Your task to perform on an android device: turn off notifications settings in the gmail app Image 0: 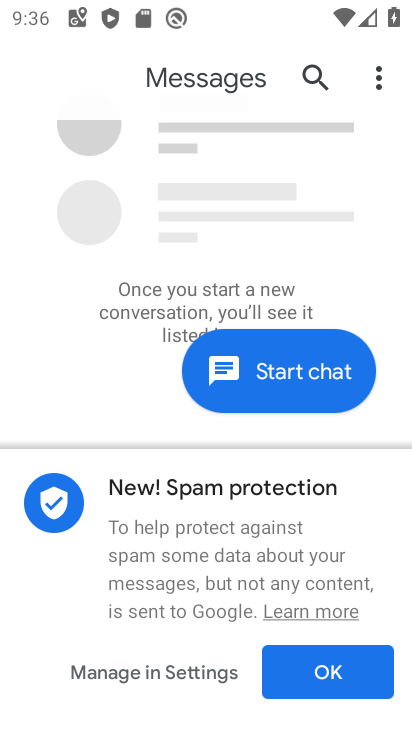
Step 0: press home button
Your task to perform on an android device: turn off notifications settings in the gmail app Image 1: 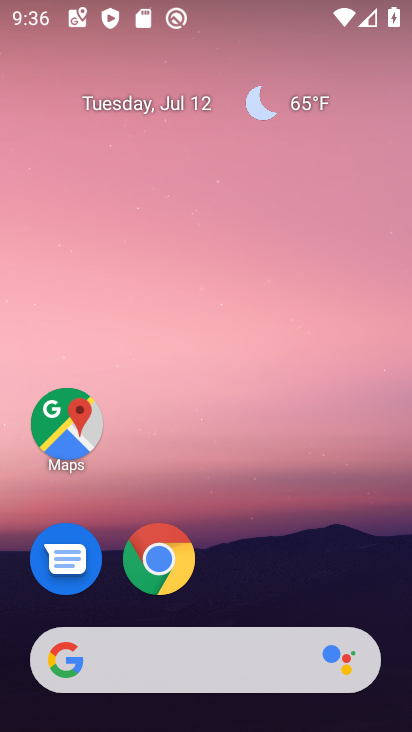
Step 1: drag from (351, 581) to (354, 68)
Your task to perform on an android device: turn off notifications settings in the gmail app Image 2: 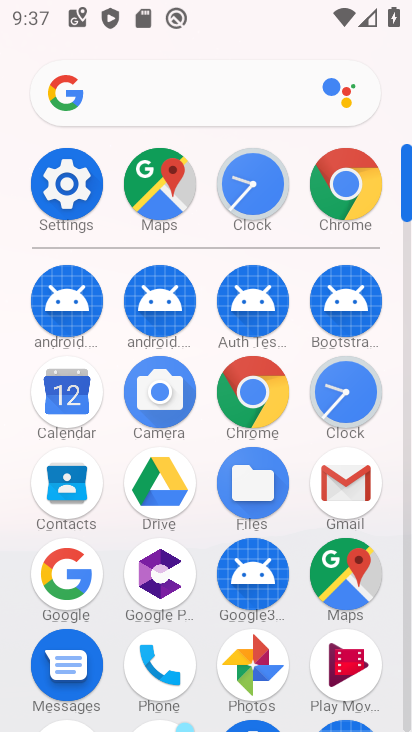
Step 2: click (353, 482)
Your task to perform on an android device: turn off notifications settings in the gmail app Image 3: 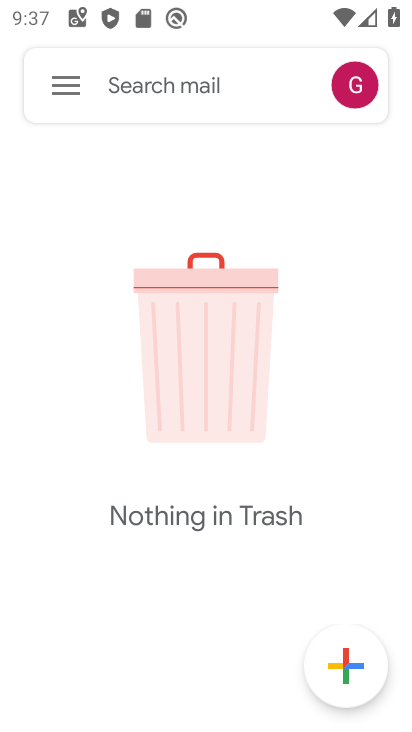
Step 3: click (64, 88)
Your task to perform on an android device: turn off notifications settings in the gmail app Image 4: 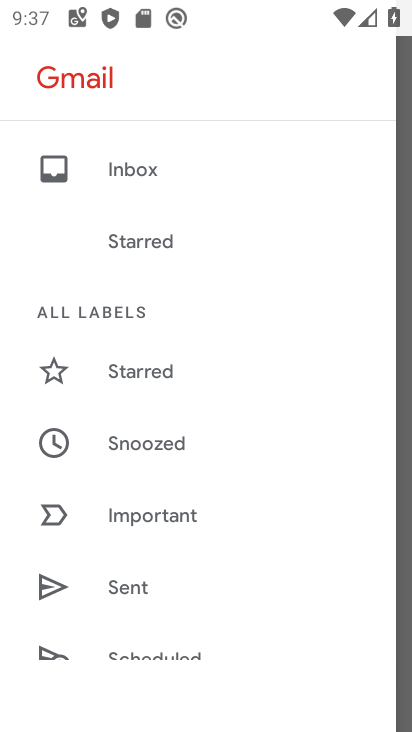
Step 4: drag from (292, 499) to (298, 270)
Your task to perform on an android device: turn off notifications settings in the gmail app Image 5: 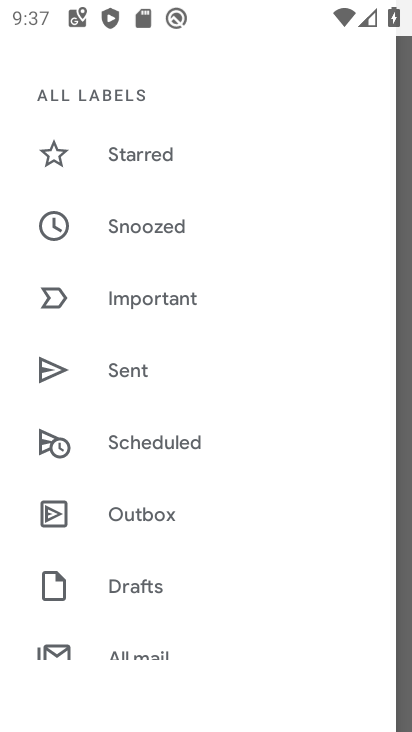
Step 5: drag from (325, 196) to (305, 374)
Your task to perform on an android device: turn off notifications settings in the gmail app Image 6: 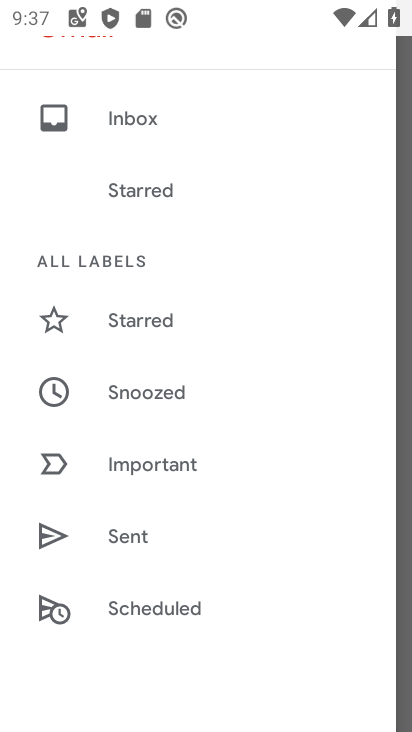
Step 6: drag from (291, 132) to (280, 318)
Your task to perform on an android device: turn off notifications settings in the gmail app Image 7: 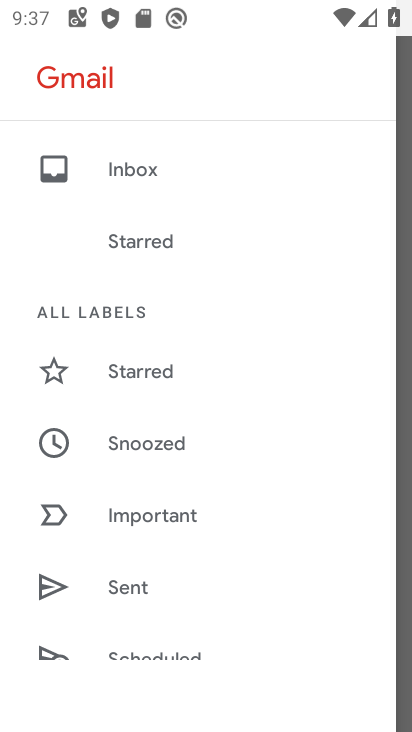
Step 7: drag from (303, 439) to (300, 230)
Your task to perform on an android device: turn off notifications settings in the gmail app Image 8: 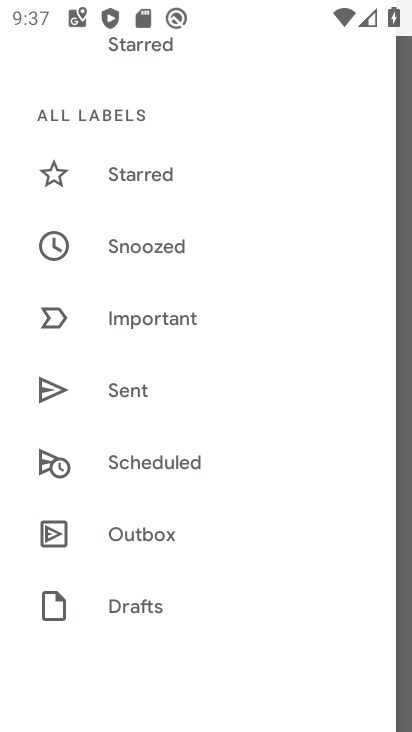
Step 8: drag from (298, 422) to (298, 216)
Your task to perform on an android device: turn off notifications settings in the gmail app Image 9: 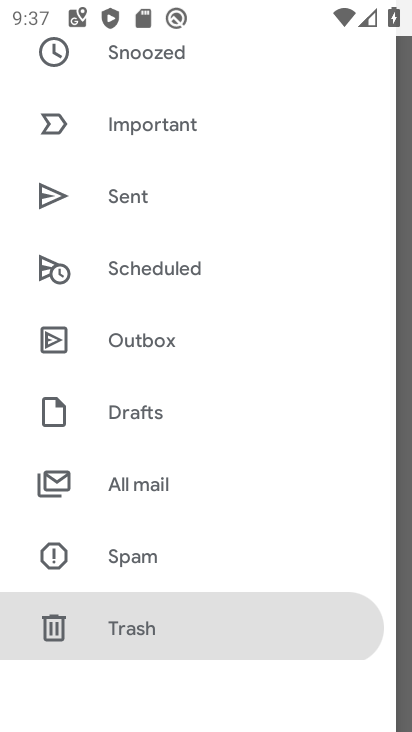
Step 9: drag from (294, 443) to (290, 256)
Your task to perform on an android device: turn off notifications settings in the gmail app Image 10: 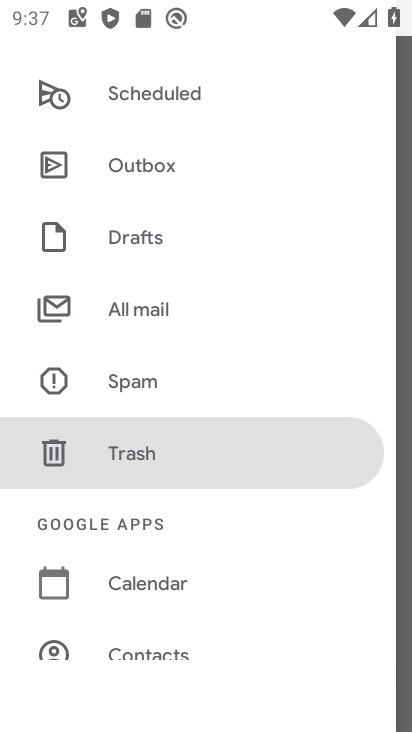
Step 10: drag from (290, 205) to (291, 442)
Your task to perform on an android device: turn off notifications settings in the gmail app Image 11: 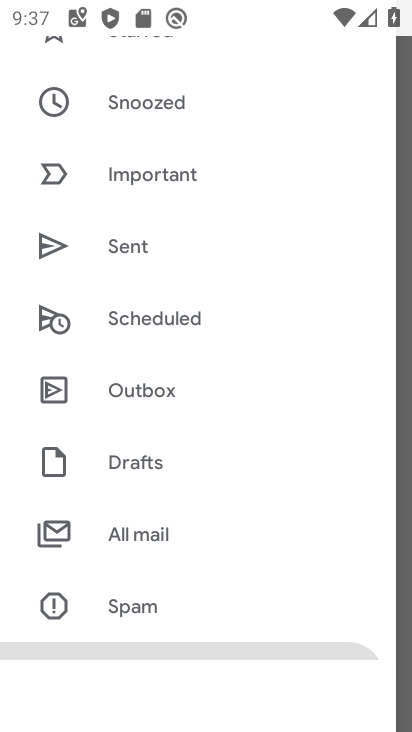
Step 11: drag from (321, 519) to (361, 304)
Your task to perform on an android device: turn off notifications settings in the gmail app Image 12: 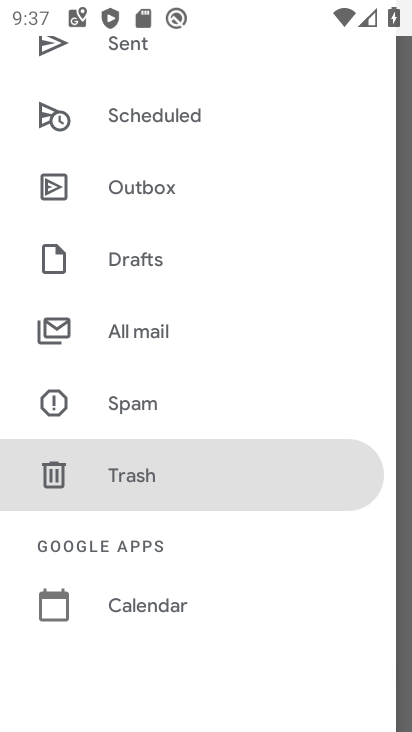
Step 12: drag from (309, 551) to (304, 298)
Your task to perform on an android device: turn off notifications settings in the gmail app Image 13: 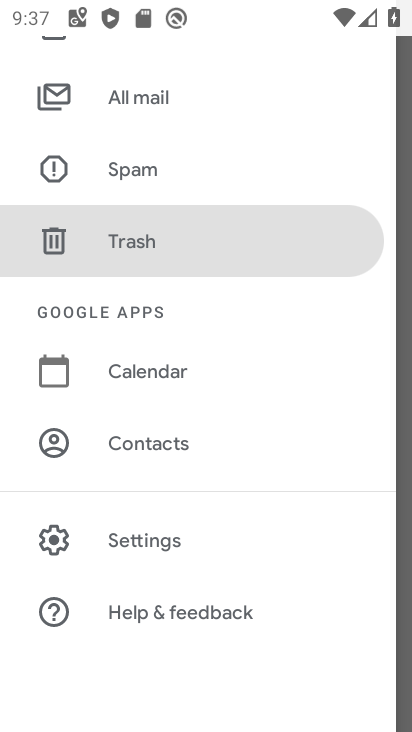
Step 13: click (182, 548)
Your task to perform on an android device: turn off notifications settings in the gmail app Image 14: 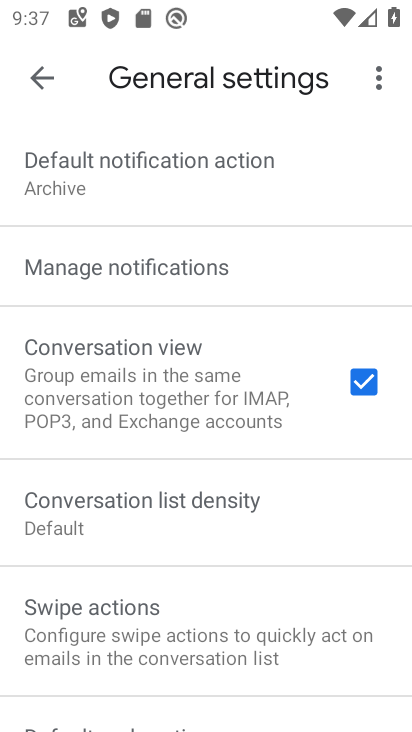
Step 14: drag from (268, 567) to (275, 396)
Your task to perform on an android device: turn off notifications settings in the gmail app Image 15: 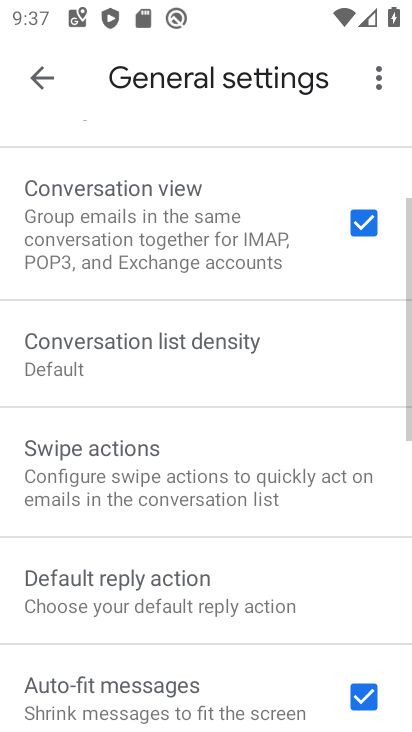
Step 15: drag from (261, 277) to (256, 518)
Your task to perform on an android device: turn off notifications settings in the gmail app Image 16: 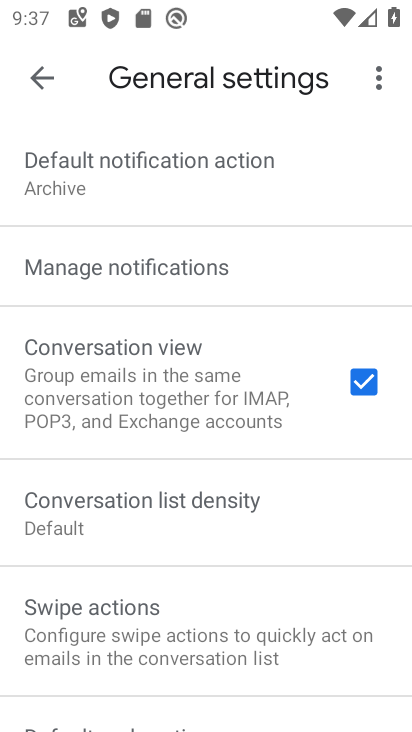
Step 16: click (228, 267)
Your task to perform on an android device: turn off notifications settings in the gmail app Image 17: 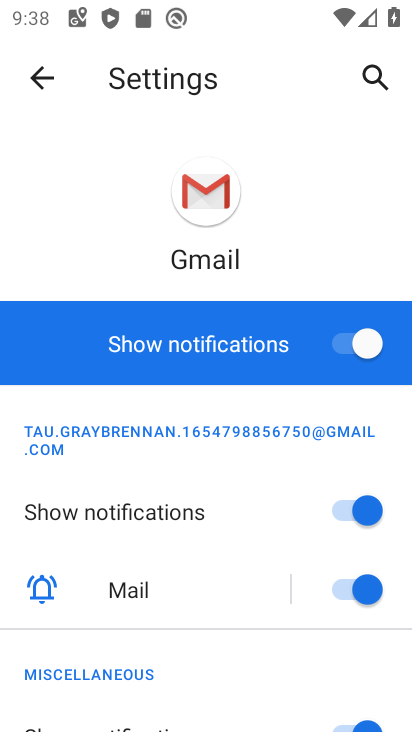
Step 17: click (364, 347)
Your task to perform on an android device: turn off notifications settings in the gmail app Image 18: 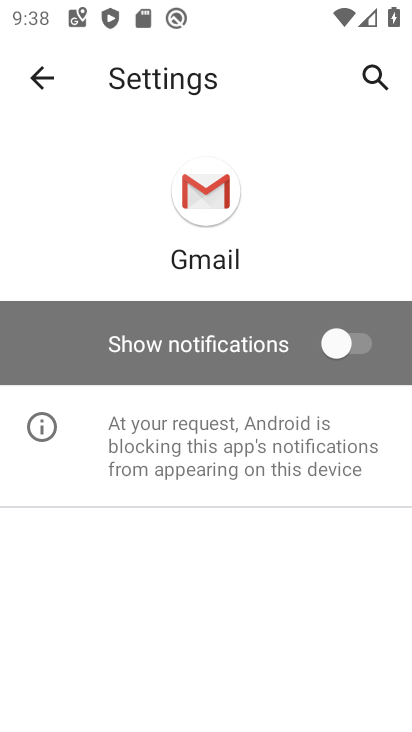
Step 18: task complete